Your task to perform on an android device: Check the weather Image 0: 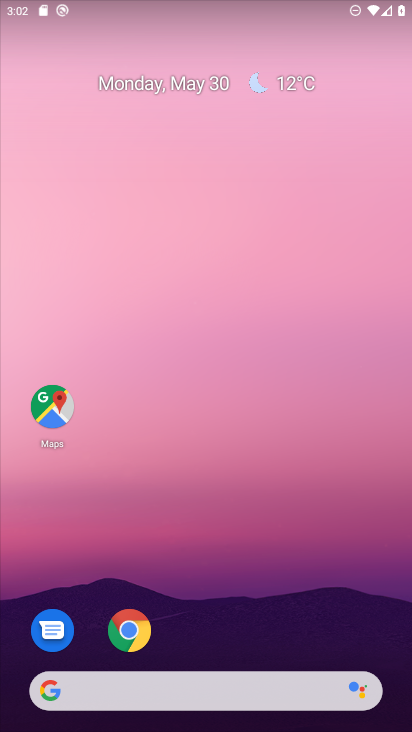
Step 0: click (285, 83)
Your task to perform on an android device: Check the weather Image 1: 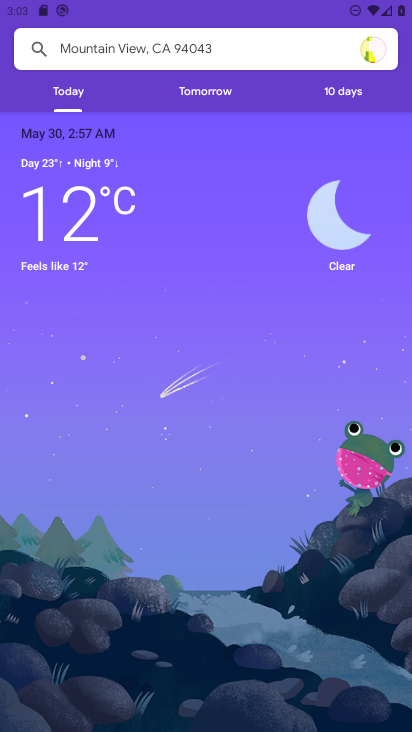
Step 1: task complete